Your task to perform on an android device: Open privacy settings Image 0: 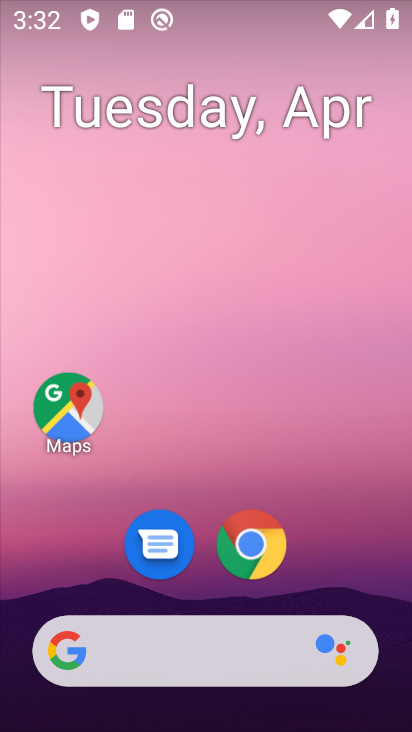
Step 0: click (259, 562)
Your task to perform on an android device: Open privacy settings Image 1: 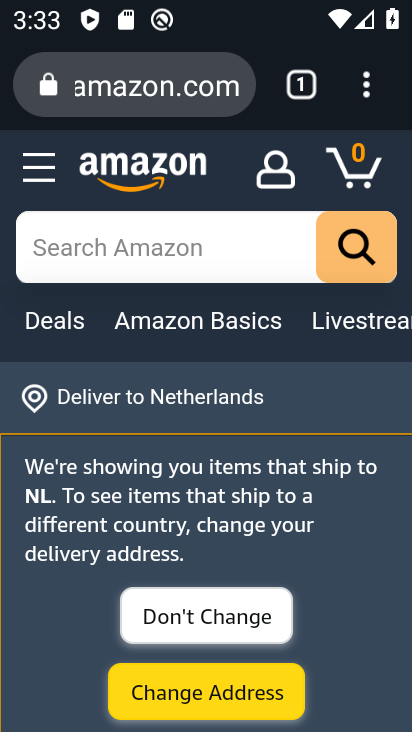
Step 1: drag from (359, 88) to (165, 589)
Your task to perform on an android device: Open privacy settings Image 2: 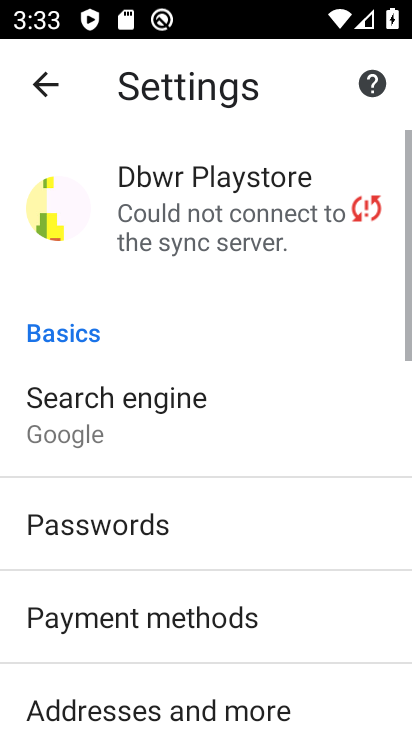
Step 2: drag from (164, 593) to (171, 300)
Your task to perform on an android device: Open privacy settings Image 3: 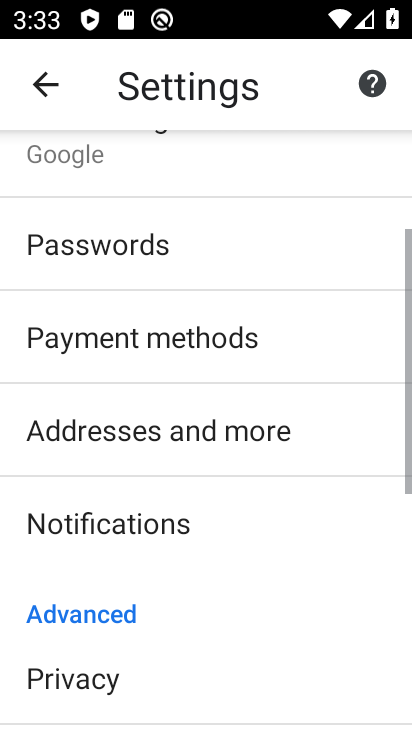
Step 3: drag from (217, 596) to (215, 310)
Your task to perform on an android device: Open privacy settings Image 4: 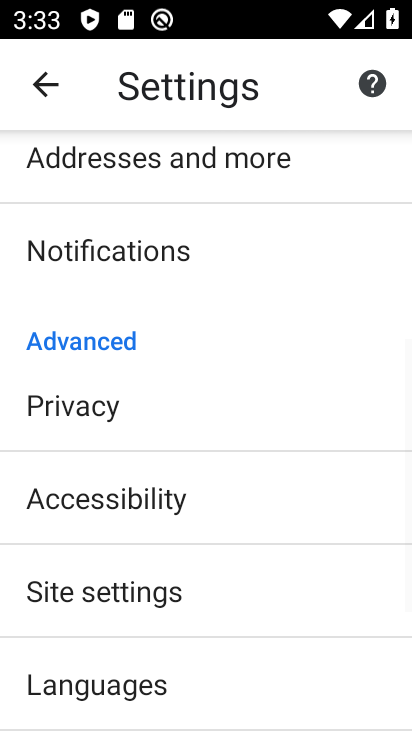
Step 4: click (102, 416)
Your task to perform on an android device: Open privacy settings Image 5: 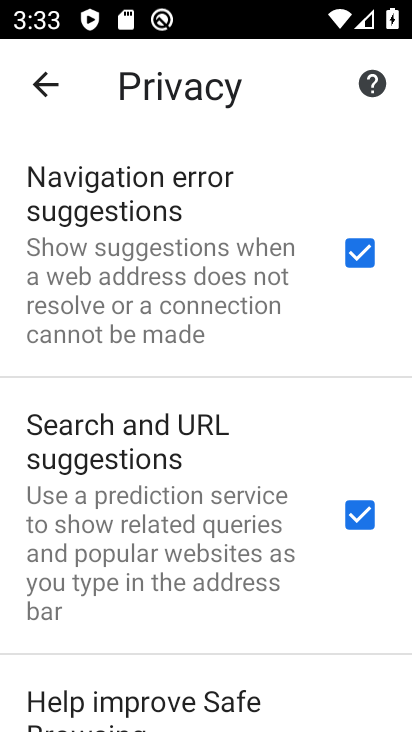
Step 5: task complete